Your task to perform on an android device: install app "Pinterest" Image 0: 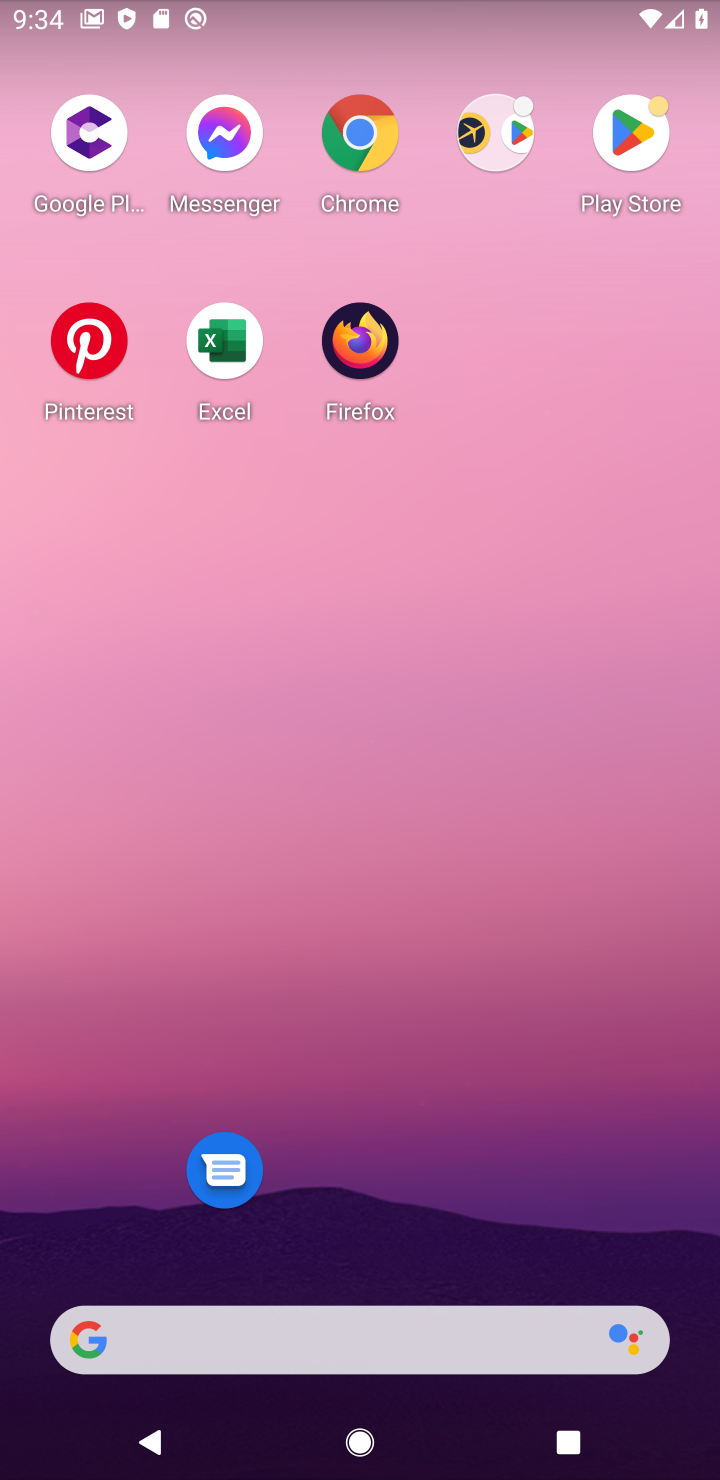
Step 0: drag from (351, 1075) to (324, 30)
Your task to perform on an android device: install app "Pinterest" Image 1: 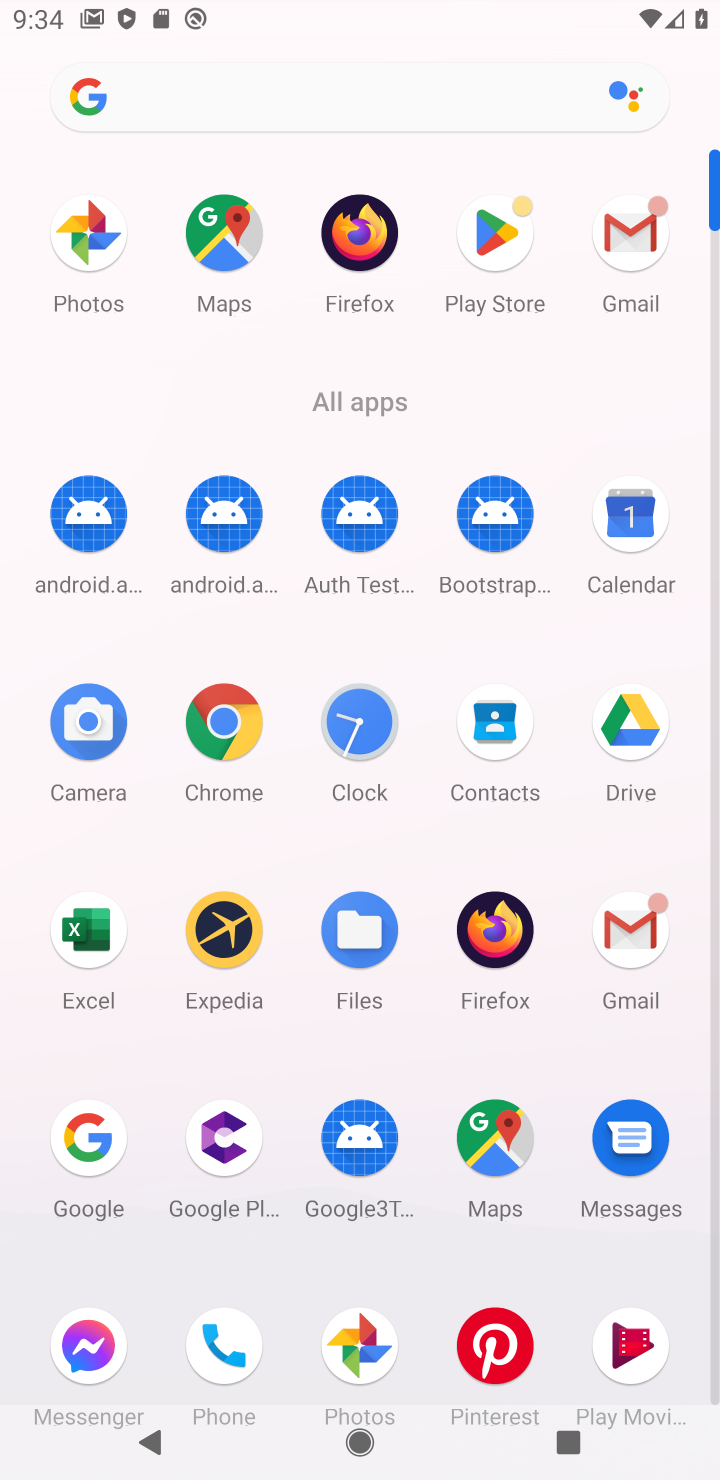
Step 1: click (494, 251)
Your task to perform on an android device: install app "Pinterest" Image 2: 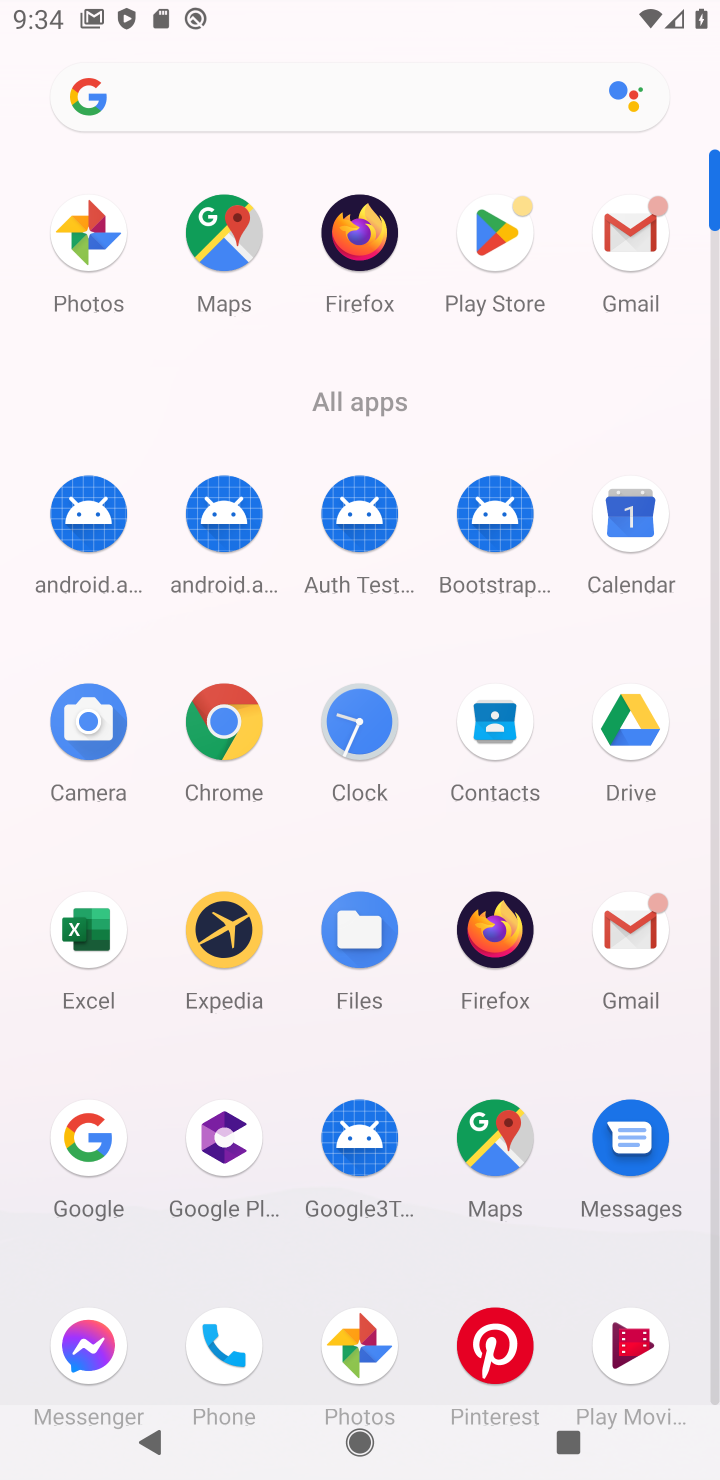
Step 2: click (494, 251)
Your task to perform on an android device: install app "Pinterest" Image 3: 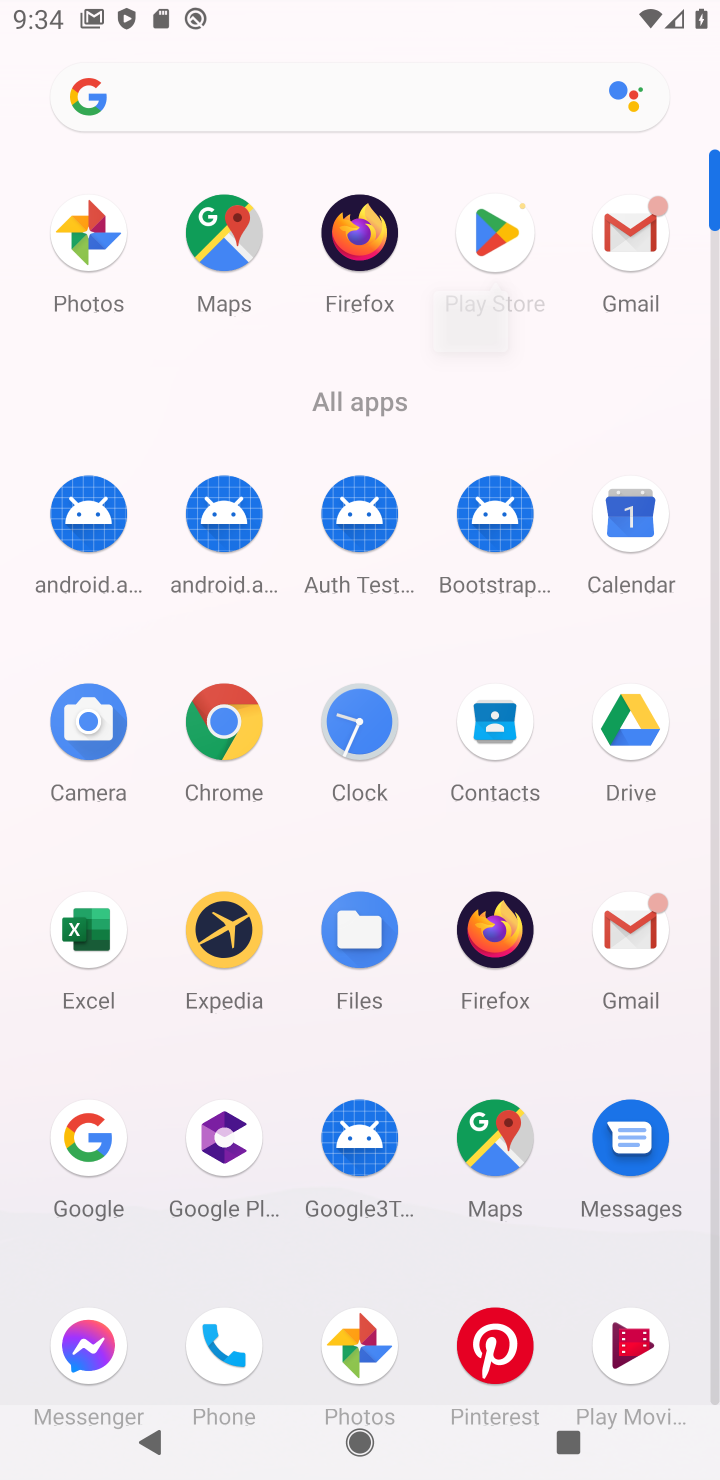
Step 3: click (498, 202)
Your task to perform on an android device: install app "Pinterest" Image 4: 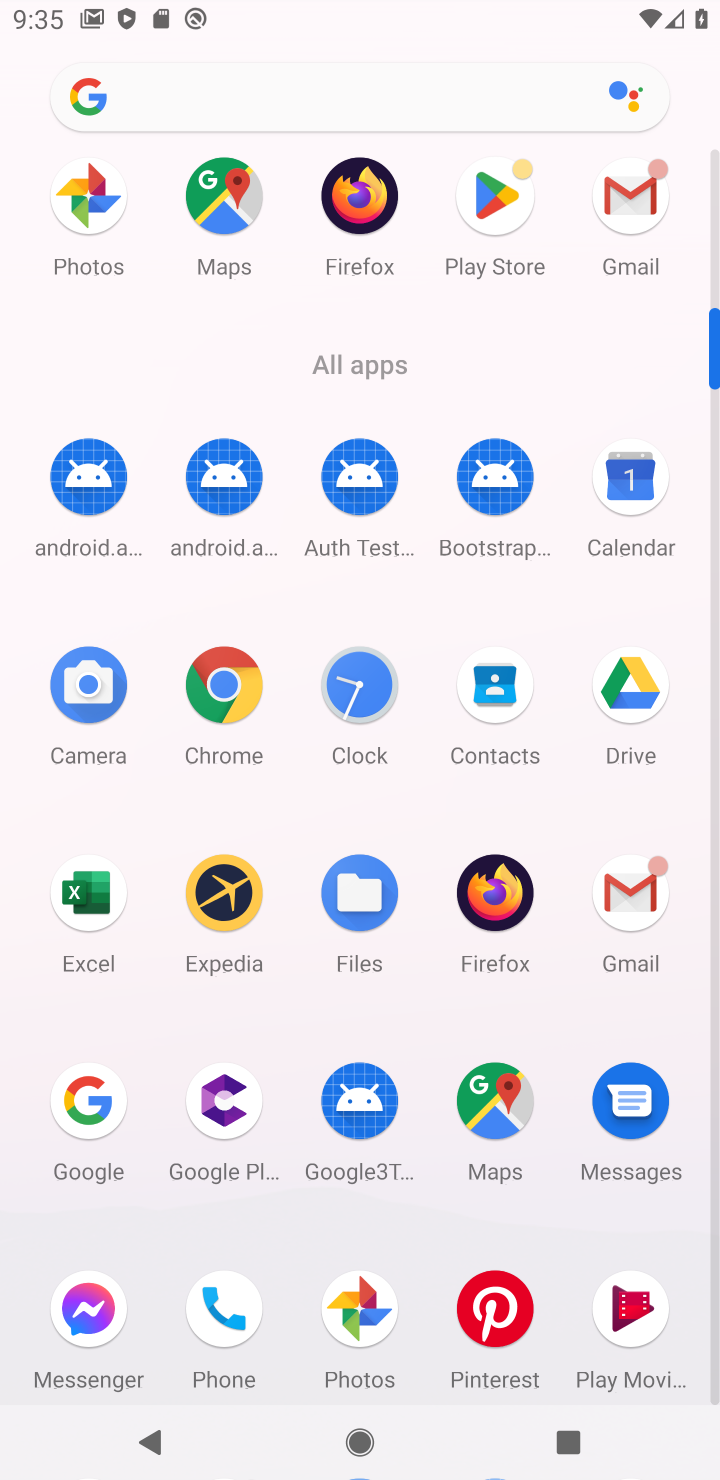
Step 4: click (497, 219)
Your task to perform on an android device: install app "Pinterest" Image 5: 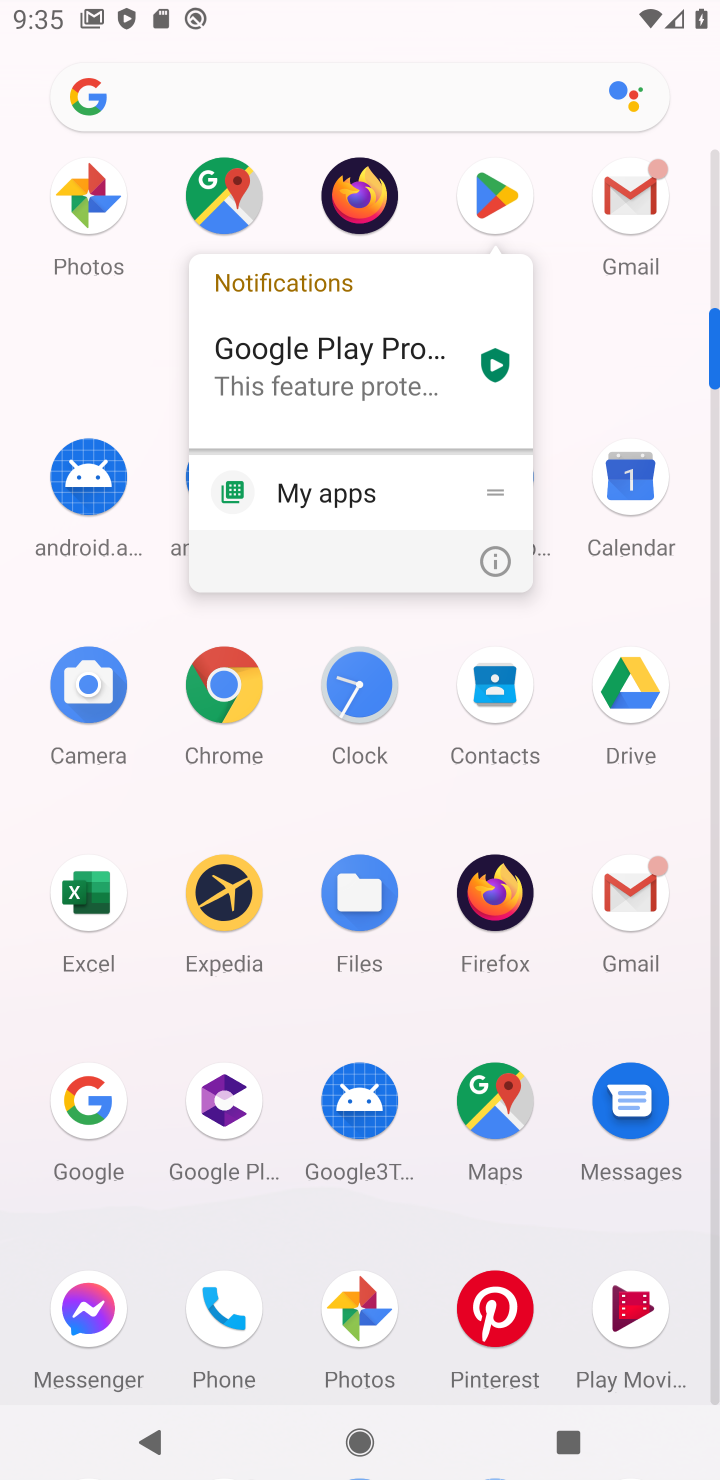
Step 5: click (497, 219)
Your task to perform on an android device: install app "Pinterest" Image 6: 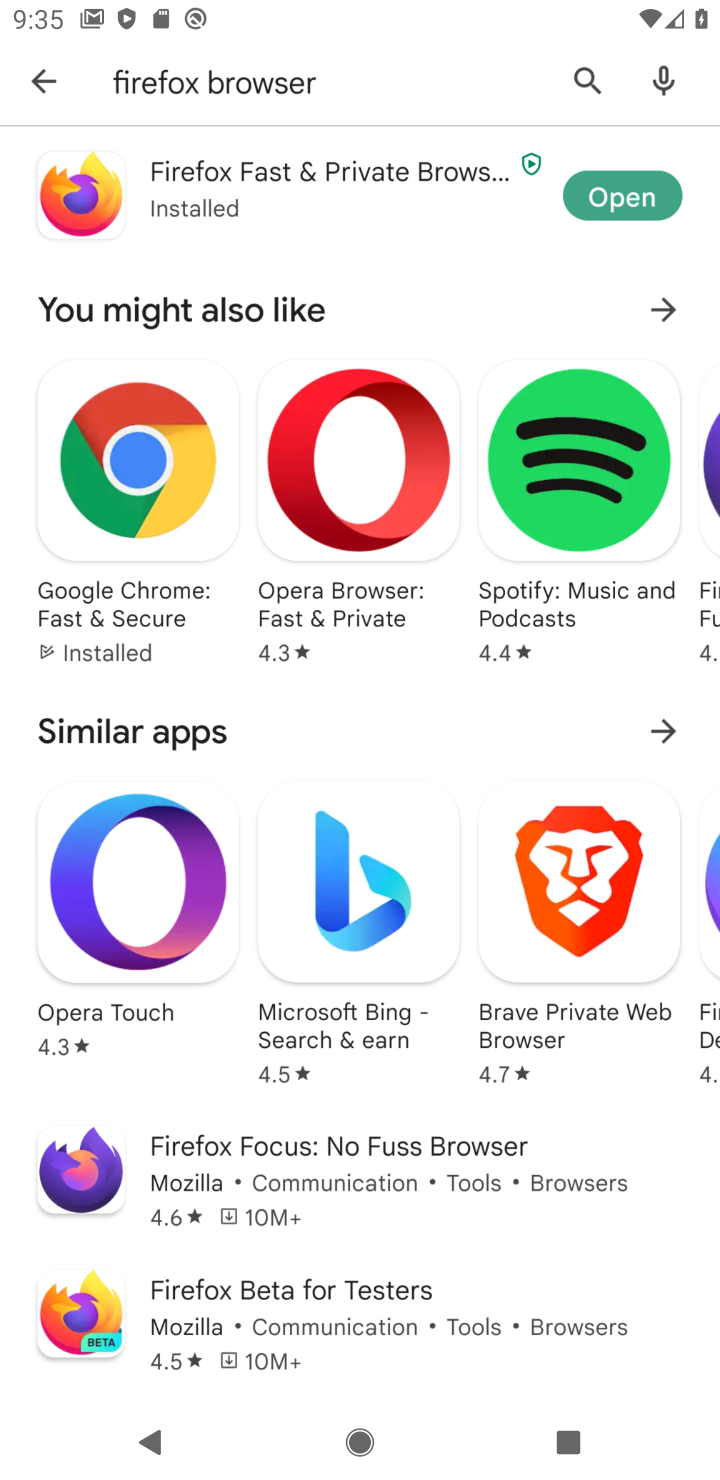
Step 6: click (520, 190)
Your task to perform on an android device: install app "Pinterest" Image 7: 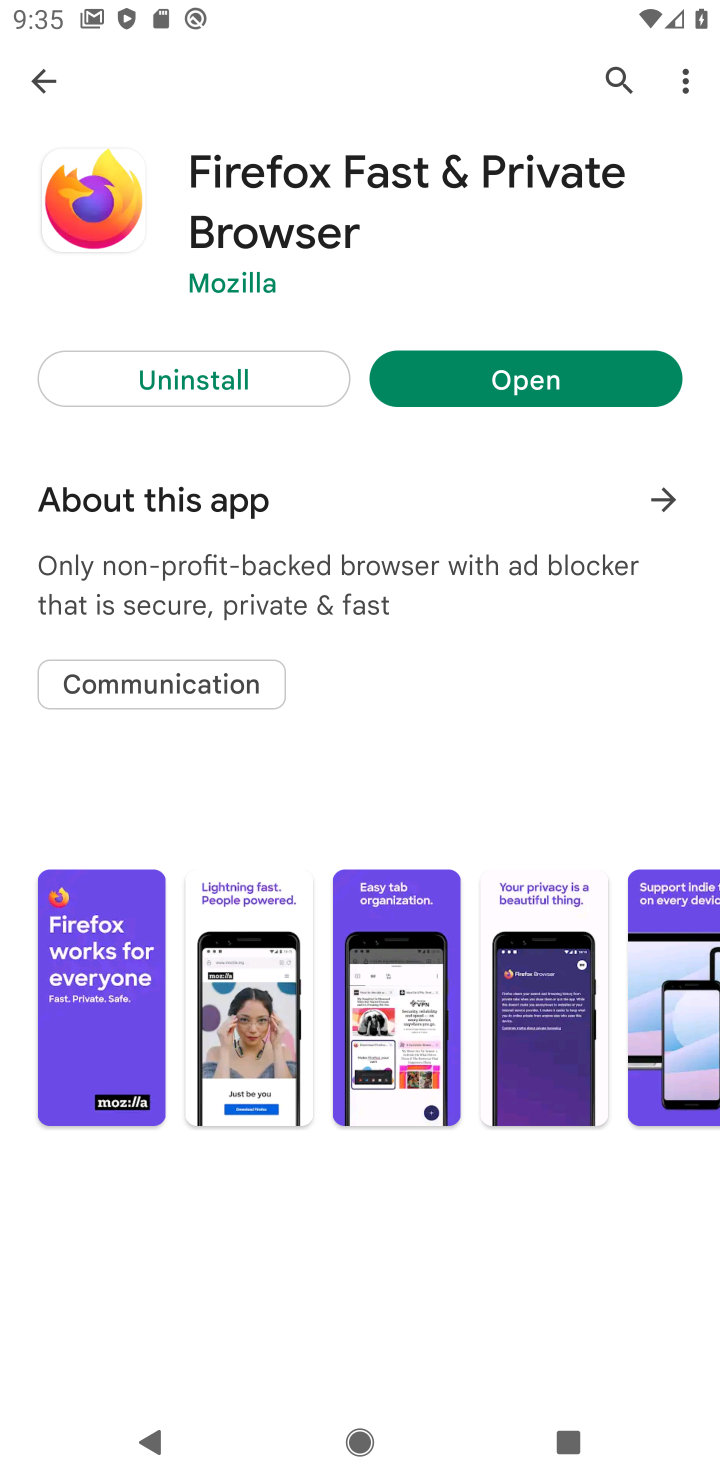
Step 7: click (52, 71)
Your task to perform on an android device: install app "Pinterest" Image 8: 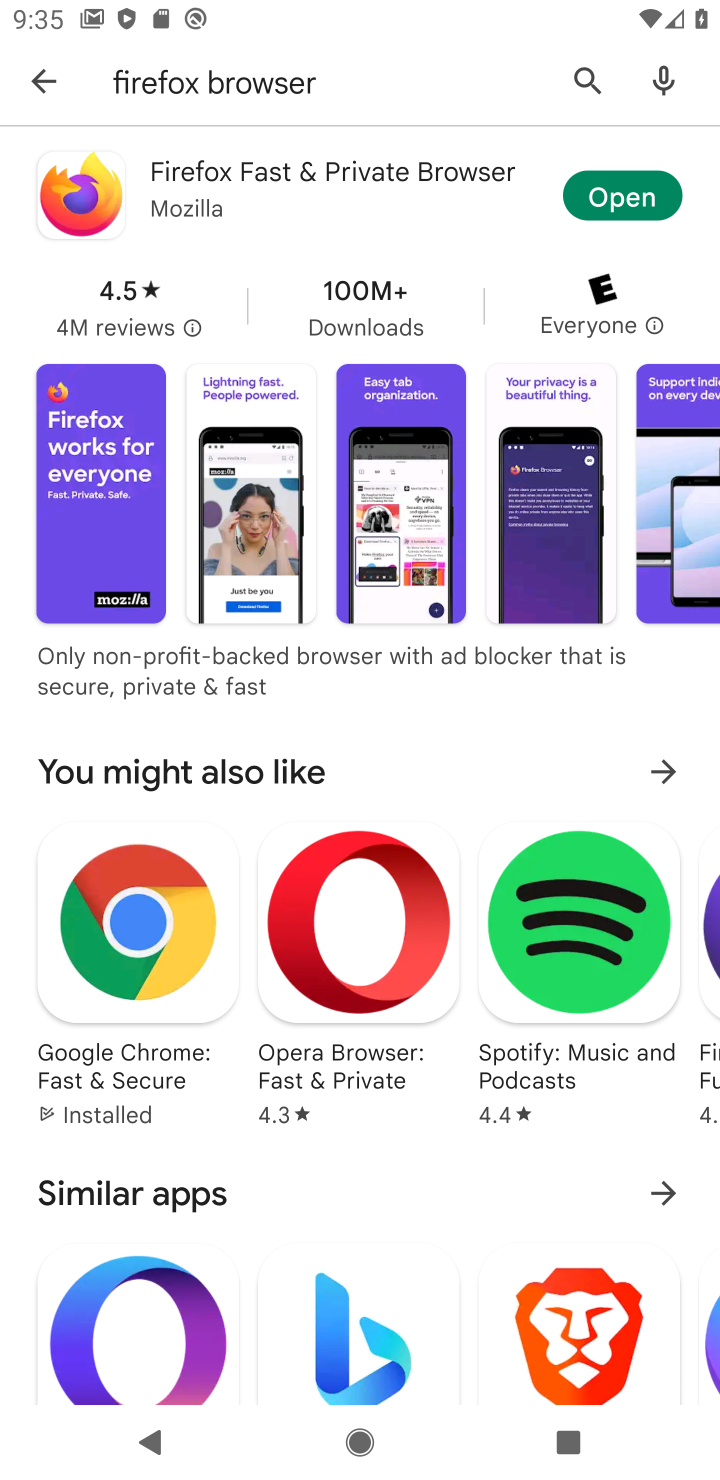
Step 8: click (38, 80)
Your task to perform on an android device: install app "Pinterest" Image 9: 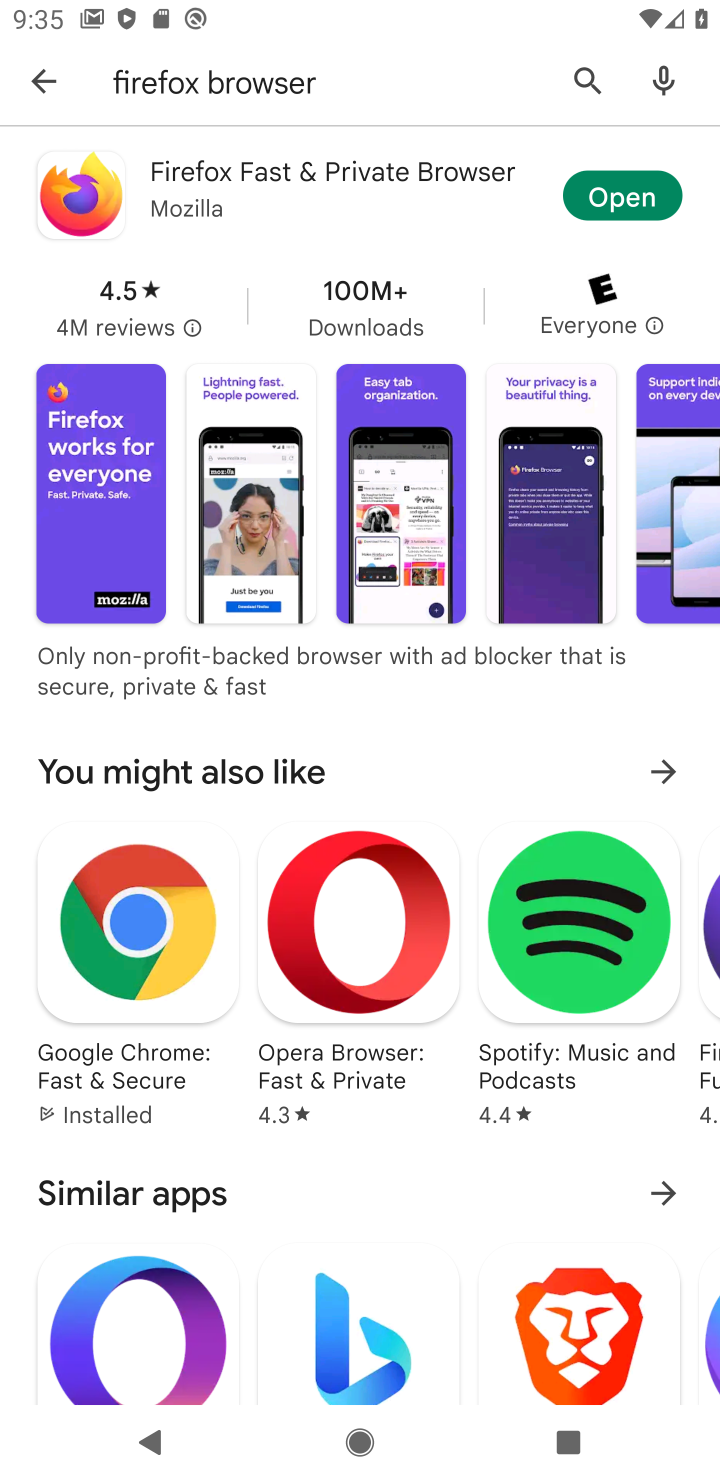
Step 9: click (38, 80)
Your task to perform on an android device: install app "Pinterest" Image 10: 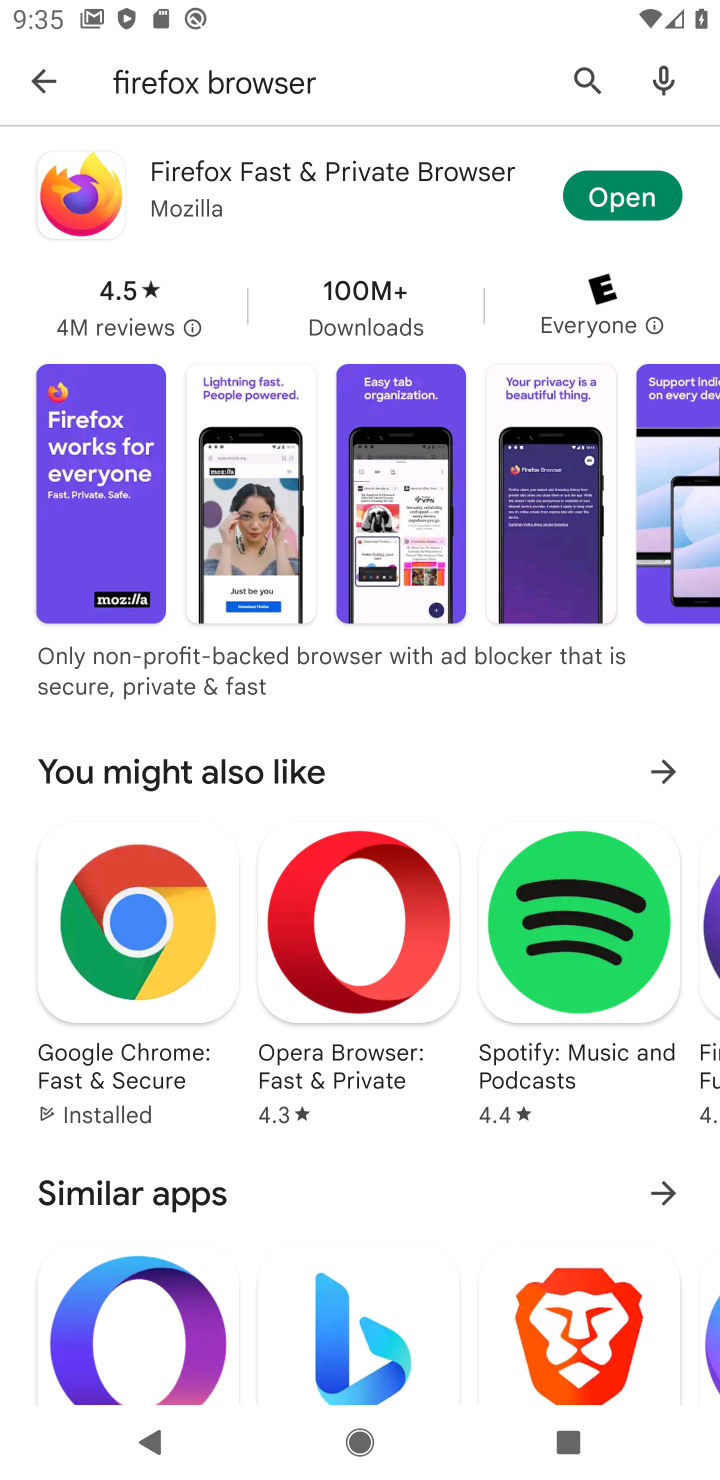
Step 10: click (43, 79)
Your task to perform on an android device: install app "Pinterest" Image 11: 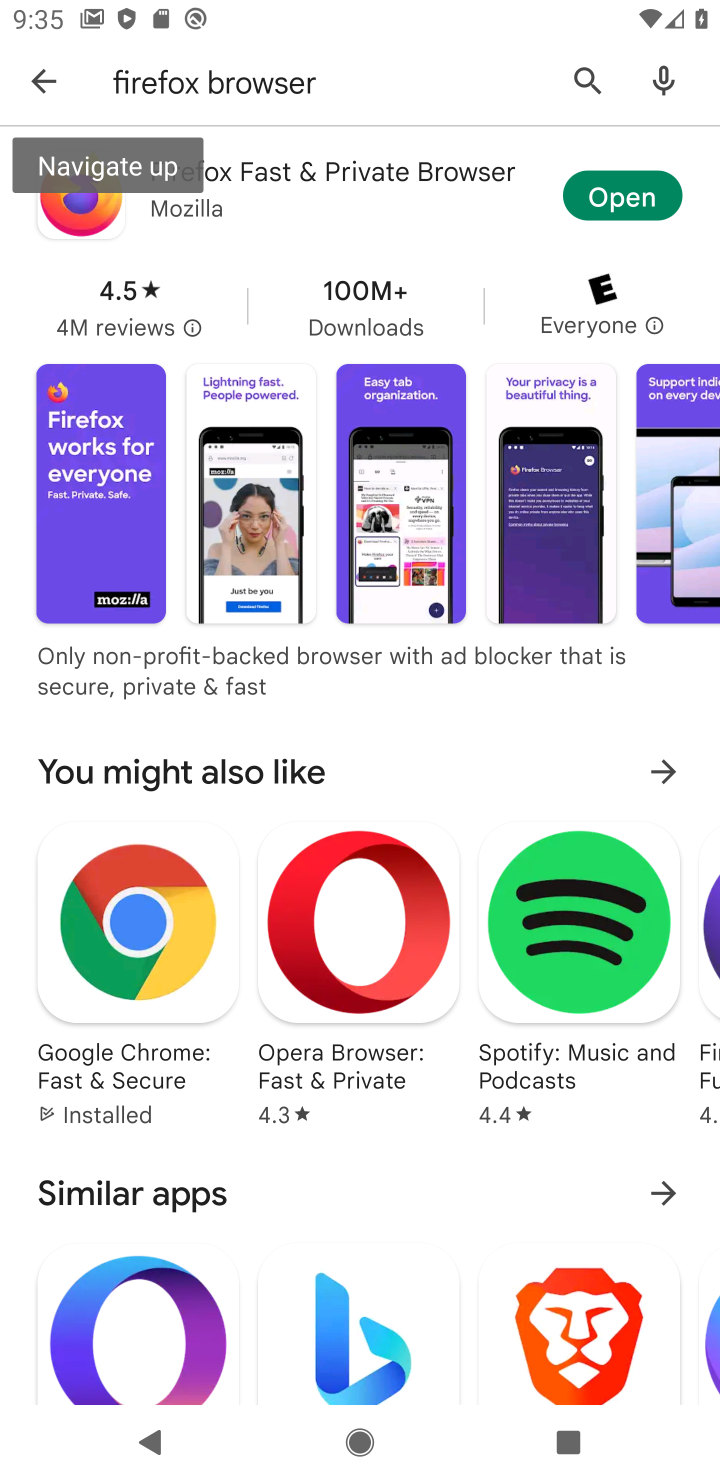
Step 11: click (48, 60)
Your task to perform on an android device: install app "Pinterest" Image 12: 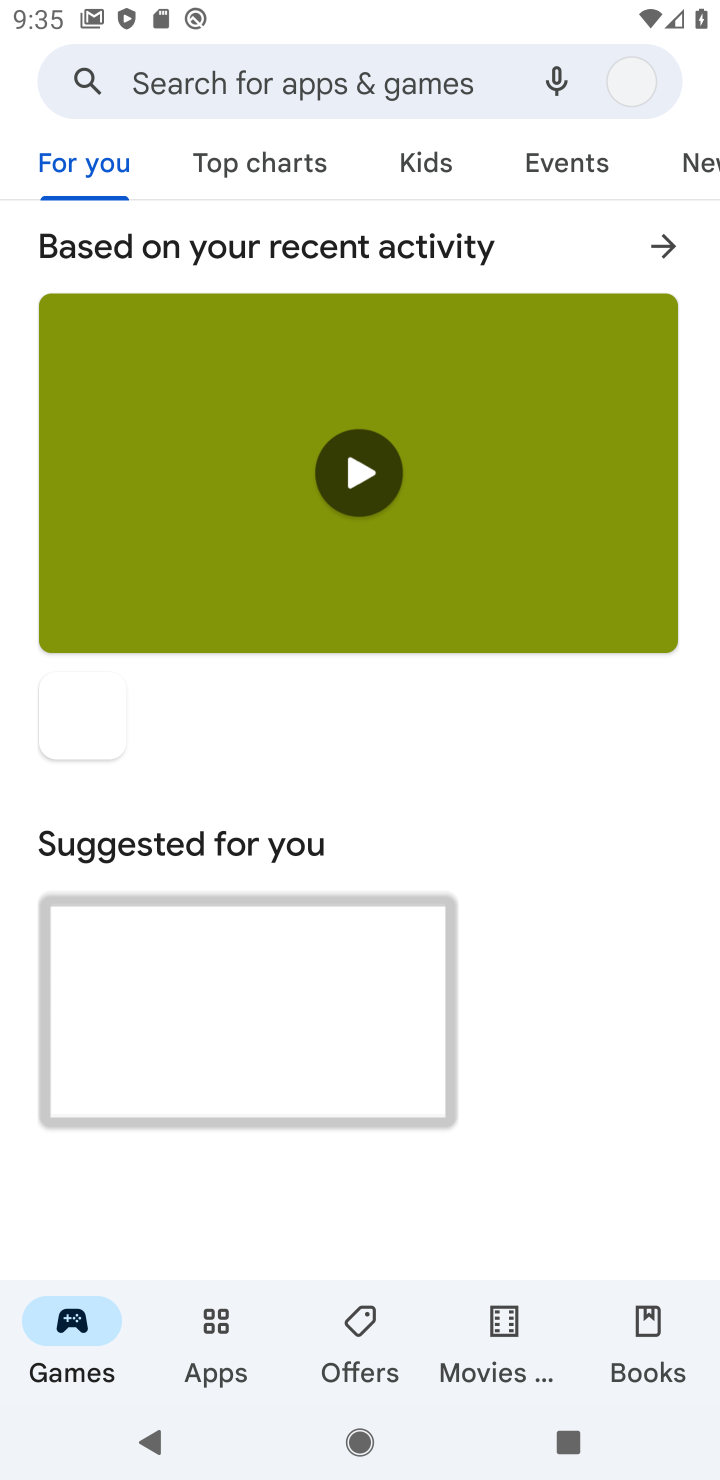
Step 12: click (187, 92)
Your task to perform on an android device: install app "Pinterest" Image 13: 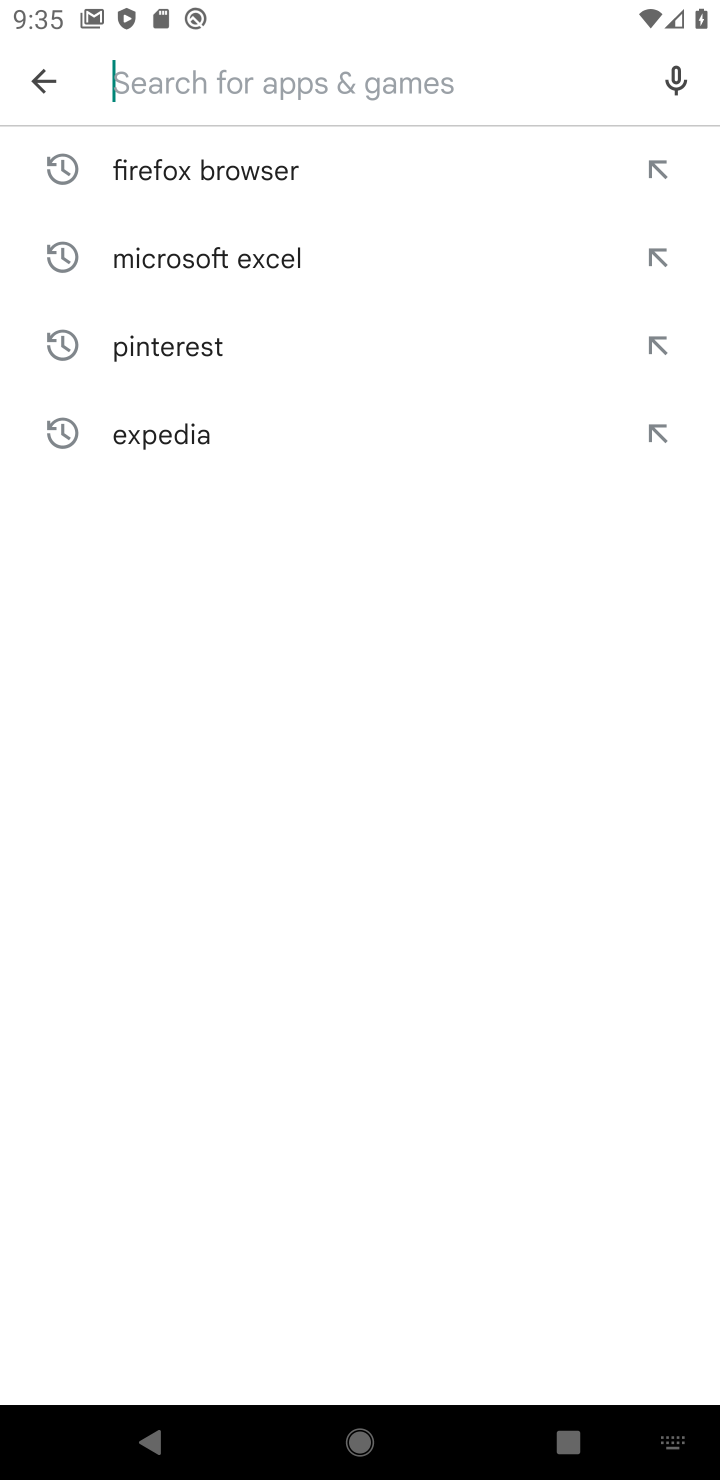
Step 13: type "pinterest"
Your task to perform on an android device: install app "Pinterest" Image 14: 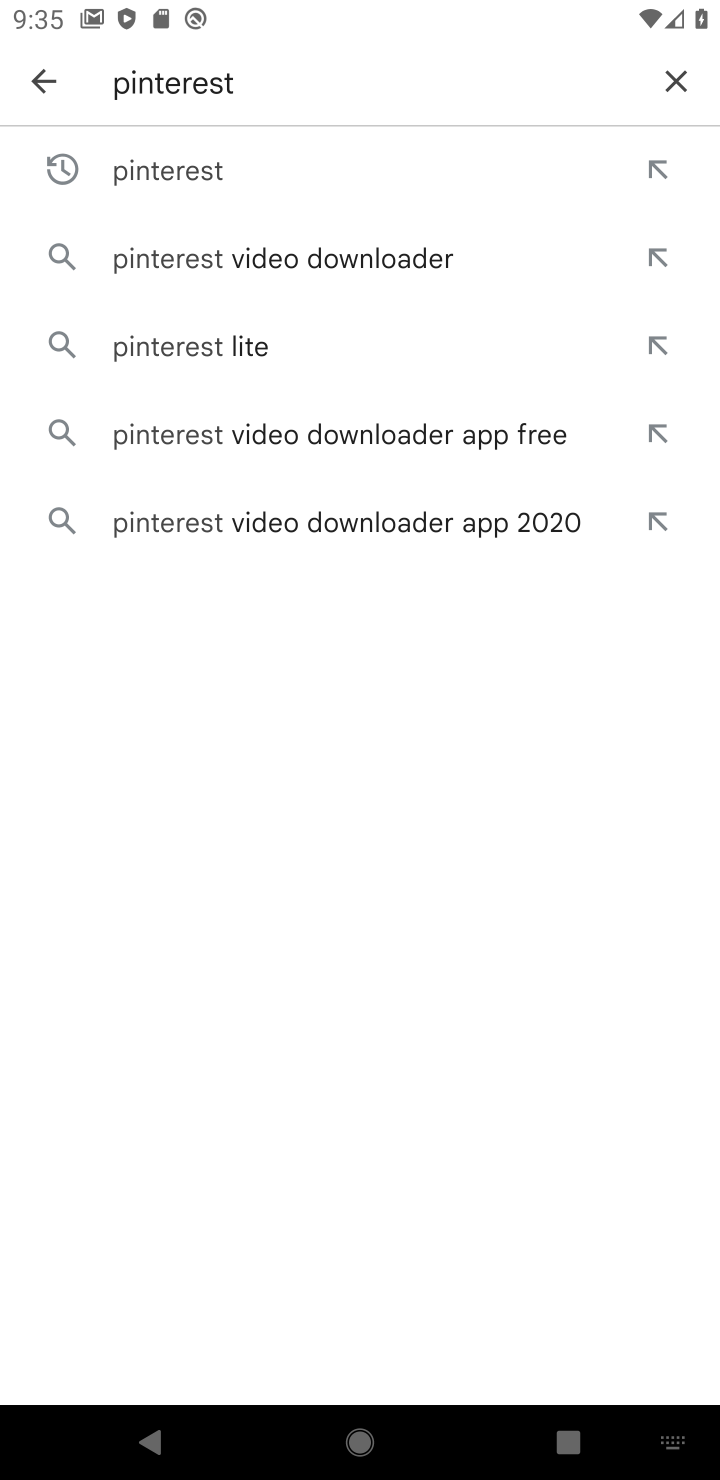
Step 14: click (188, 155)
Your task to perform on an android device: install app "Pinterest" Image 15: 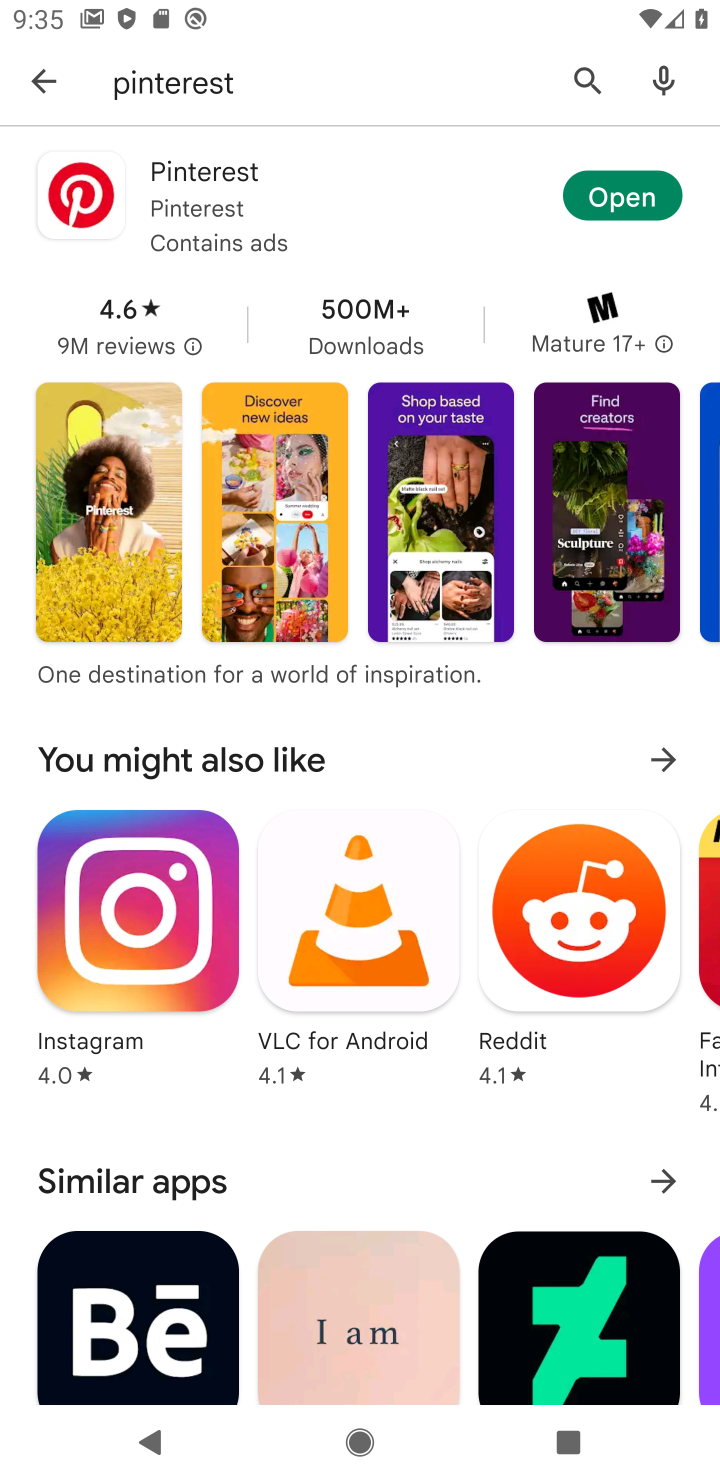
Step 15: task complete